Your task to perform on an android device: Open Google Chrome Image 0: 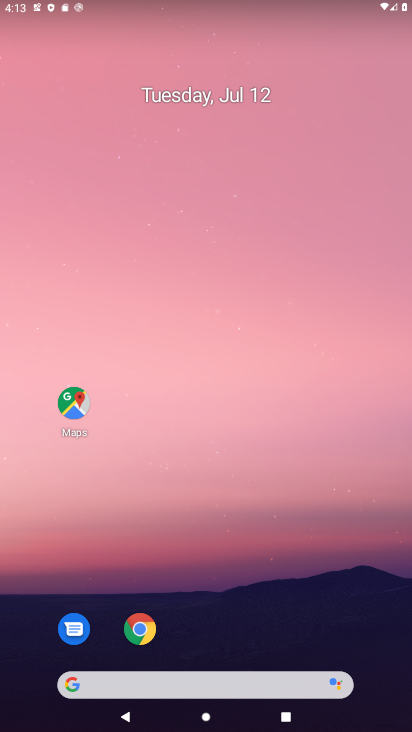
Step 0: press home button
Your task to perform on an android device: Open Google Chrome Image 1: 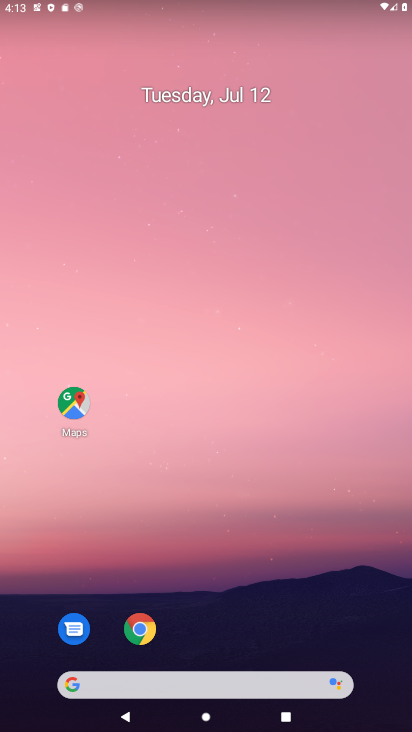
Step 1: drag from (267, 650) to (256, 55)
Your task to perform on an android device: Open Google Chrome Image 2: 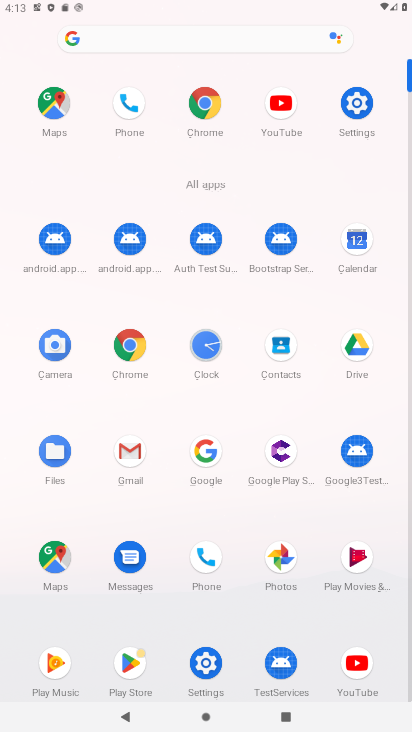
Step 2: click (200, 104)
Your task to perform on an android device: Open Google Chrome Image 3: 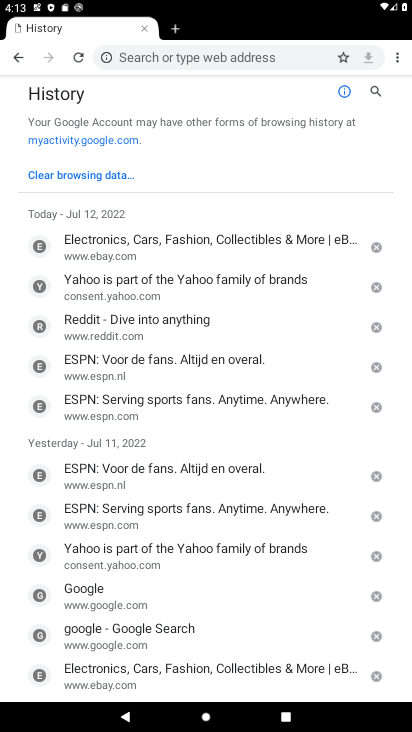
Step 3: task complete